Your task to perform on an android device: Do I have any events today? Image 0: 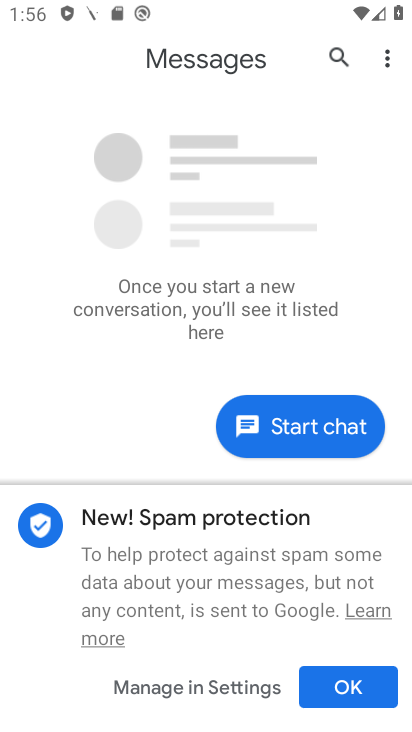
Step 0: press back button
Your task to perform on an android device: Do I have any events today? Image 1: 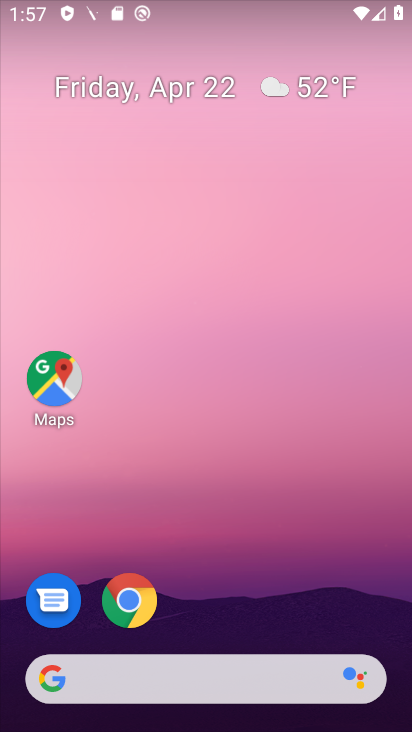
Step 1: drag from (252, 582) to (182, 54)
Your task to perform on an android device: Do I have any events today? Image 2: 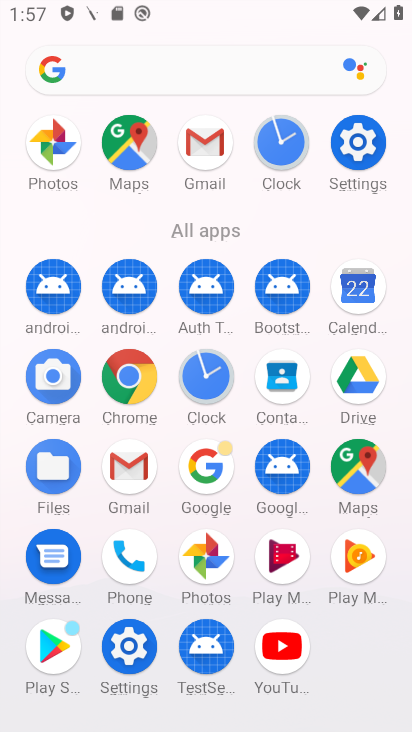
Step 2: click (358, 287)
Your task to perform on an android device: Do I have any events today? Image 3: 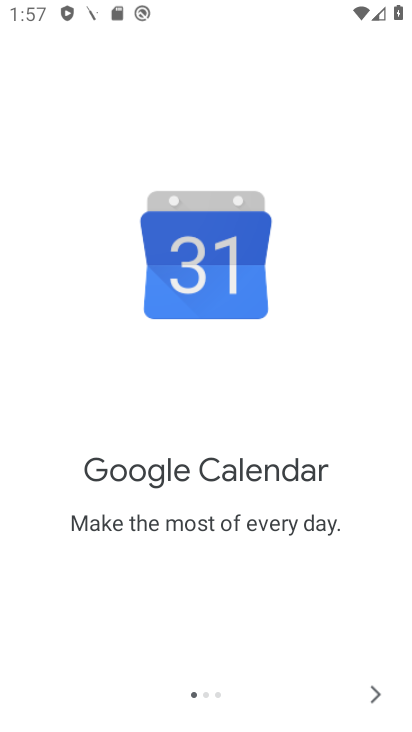
Step 3: click (378, 695)
Your task to perform on an android device: Do I have any events today? Image 4: 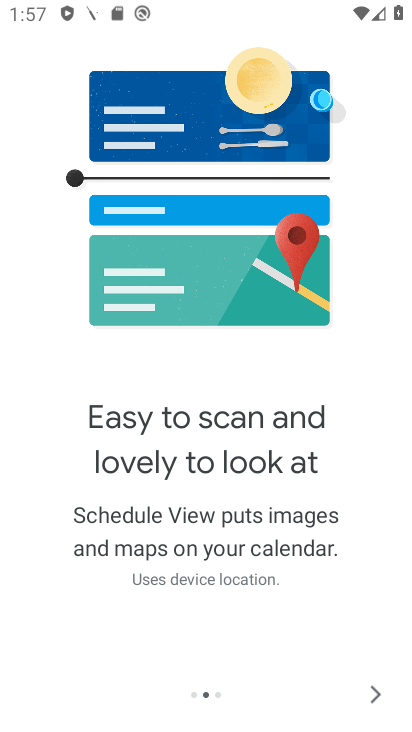
Step 4: click (378, 695)
Your task to perform on an android device: Do I have any events today? Image 5: 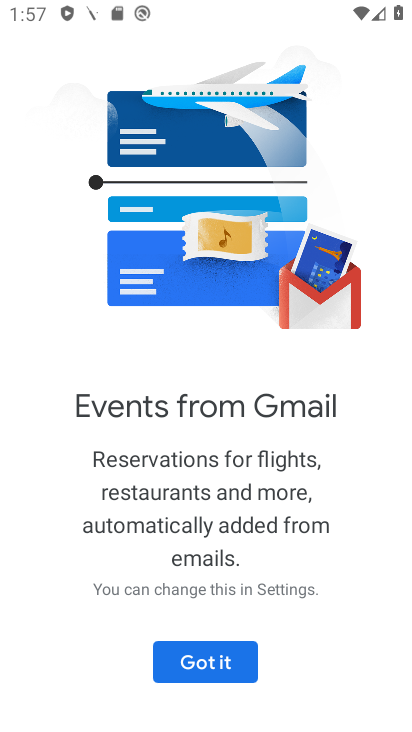
Step 5: click (219, 666)
Your task to perform on an android device: Do I have any events today? Image 6: 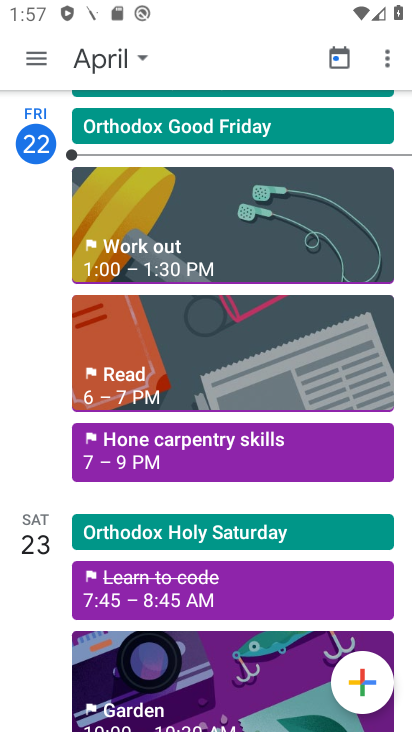
Step 6: task complete